Your task to perform on an android device: turn on the 24-hour format for clock Image 0: 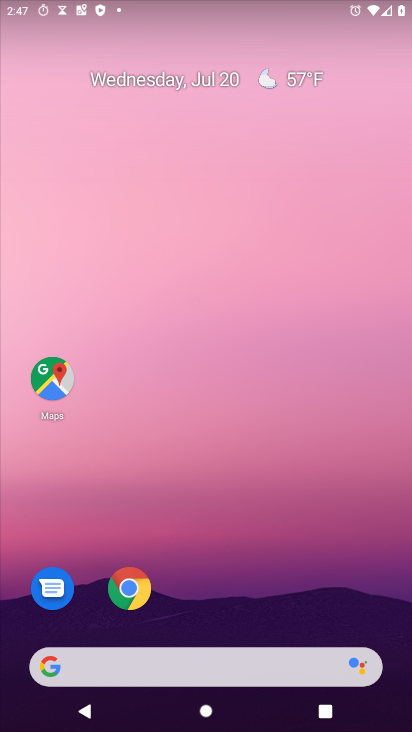
Step 0: drag from (313, 629) to (249, 9)
Your task to perform on an android device: turn on the 24-hour format for clock Image 1: 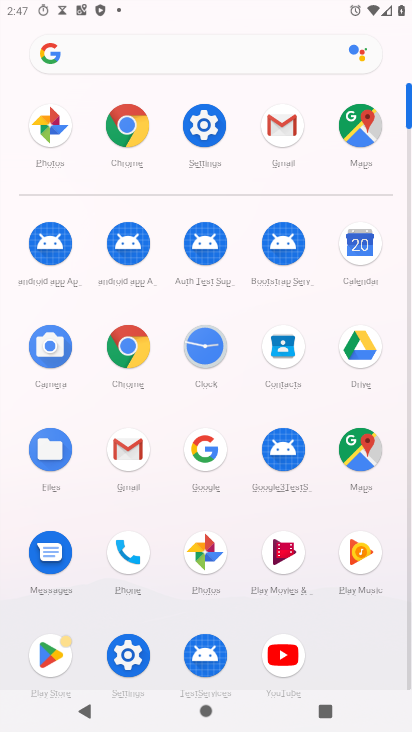
Step 1: click (197, 353)
Your task to perform on an android device: turn on the 24-hour format for clock Image 2: 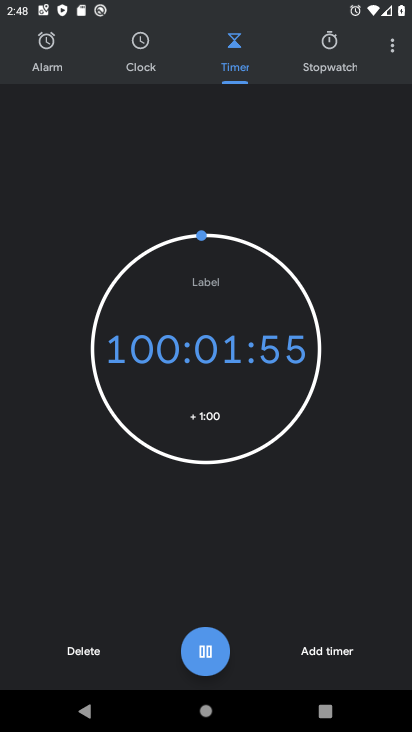
Step 2: click (393, 42)
Your task to perform on an android device: turn on the 24-hour format for clock Image 3: 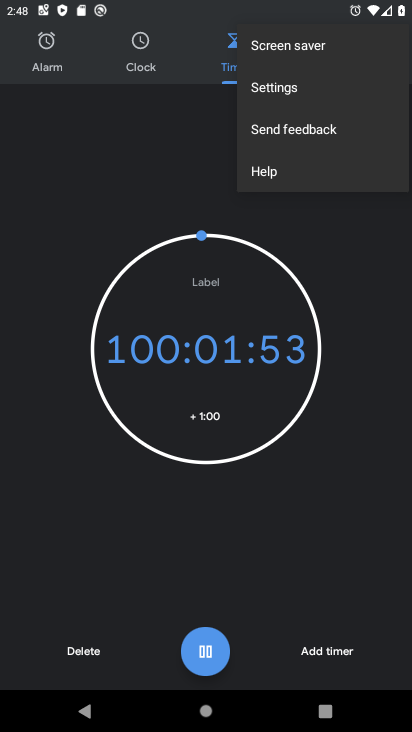
Step 3: click (330, 88)
Your task to perform on an android device: turn on the 24-hour format for clock Image 4: 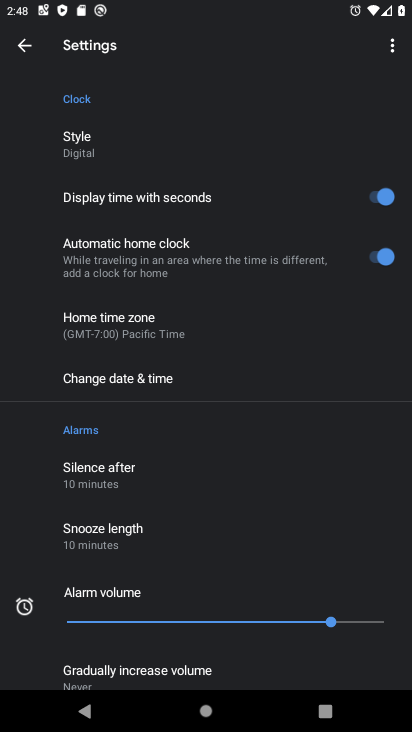
Step 4: click (142, 372)
Your task to perform on an android device: turn on the 24-hour format for clock Image 5: 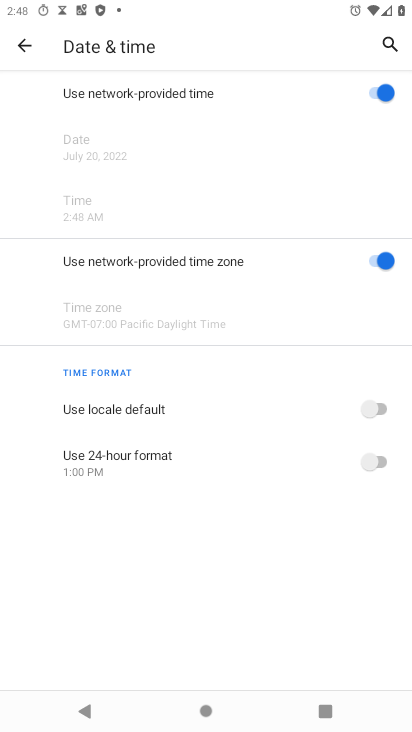
Step 5: click (376, 459)
Your task to perform on an android device: turn on the 24-hour format for clock Image 6: 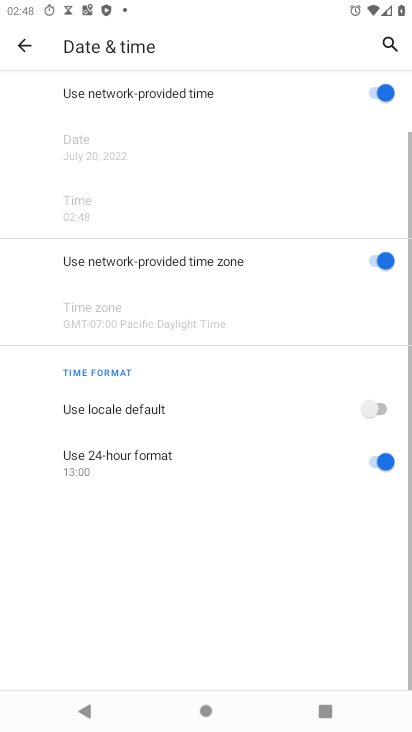
Step 6: task complete